Your task to perform on an android device: turn pop-ups on in chrome Image 0: 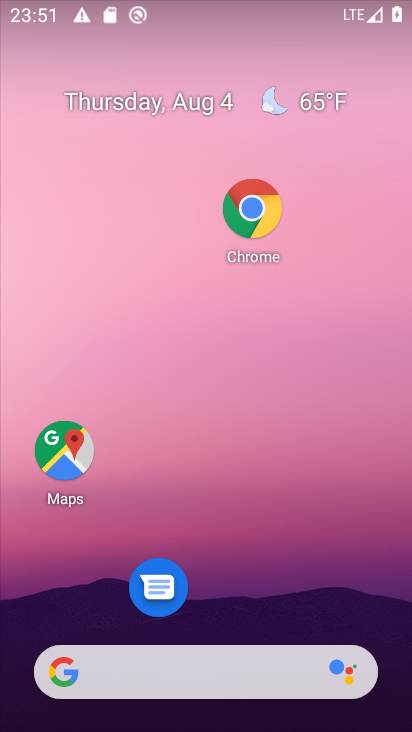
Step 0: drag from (204, 634) to (217, 216)
Your task to perform on an android device: turn pop-ups on in chrome Image 1: 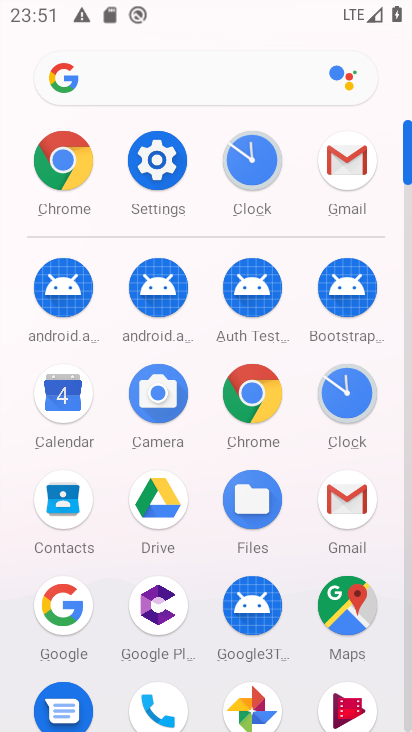
Step 1: click (234, 393)
Your task to perform on an android device: turn pop-ups on in chrome Image 2: 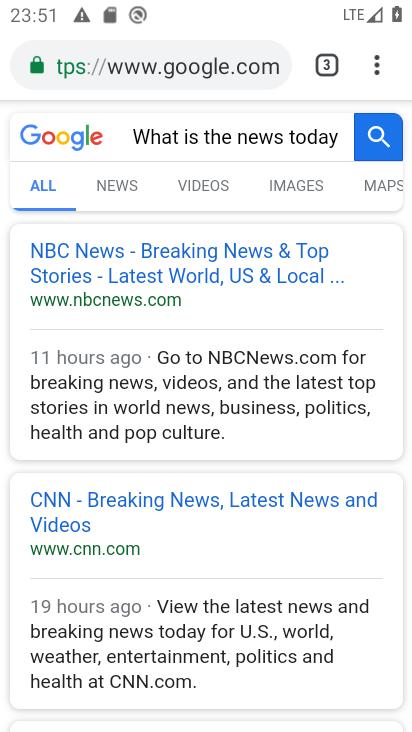
Step 2: click (385, 69)
Your task to perform on an android device: turn pop-ups on in chrome Image 3: 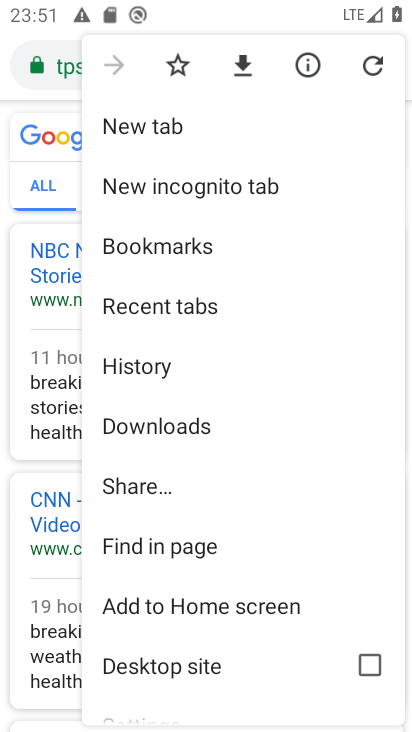
Step 3: drag from (168, 684) to (236, 325)
Your task to perform on an android device: turn pop-ups on in chrome Image 4: 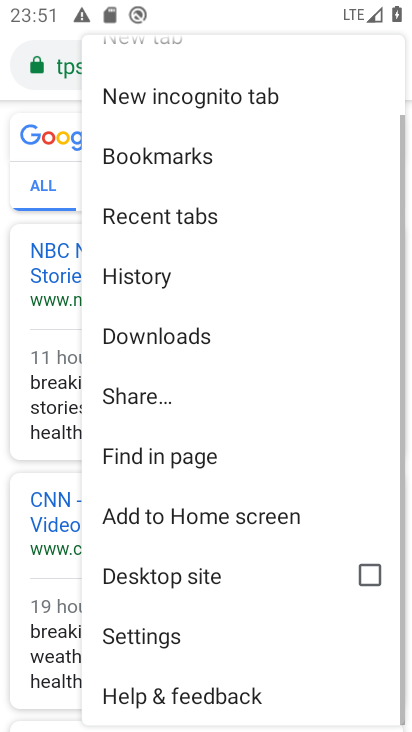
Step 4: click (150, 632)
Your task to perform on an android device: turn pop-ups on in chrome Image 5: 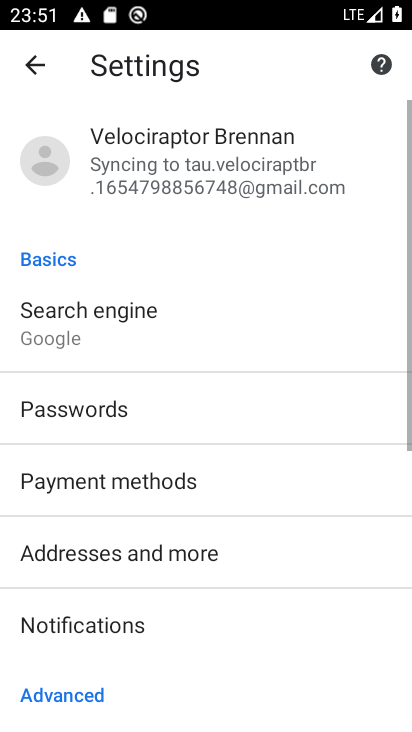
Step 5: drag from (141, 655) to (256, 211)
Your task to perform on an android device: turn pop-ups on in chrome Image 6: 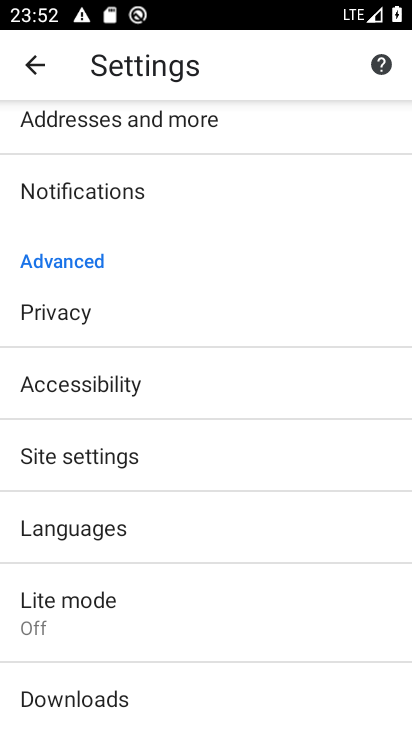
Step 6: click (165, 425)
Your task to perform on an android device: turn pop-ups on in chrome Image 7: 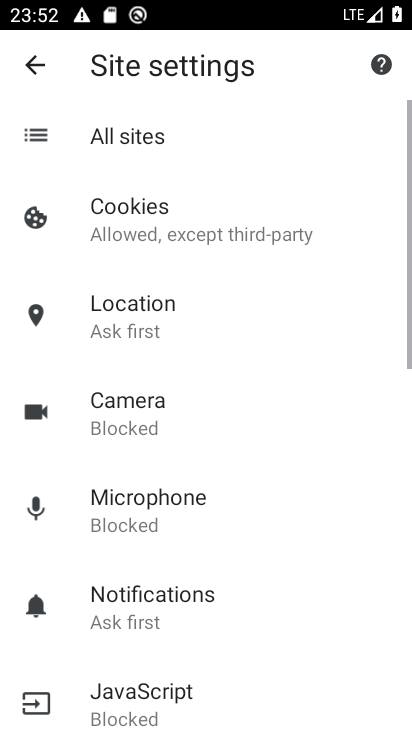
Step 7: drag from (135, 549) to (306, 190)
Your task to perform on an android device: turn pop-ups on in chrome Image 8: 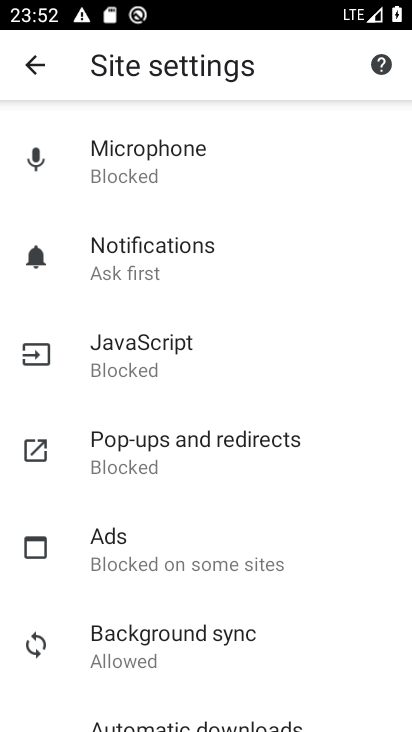
Step 8: click (166, 455)
Your task to perform on an android device: turn pop-ups on in chrome Image 9: 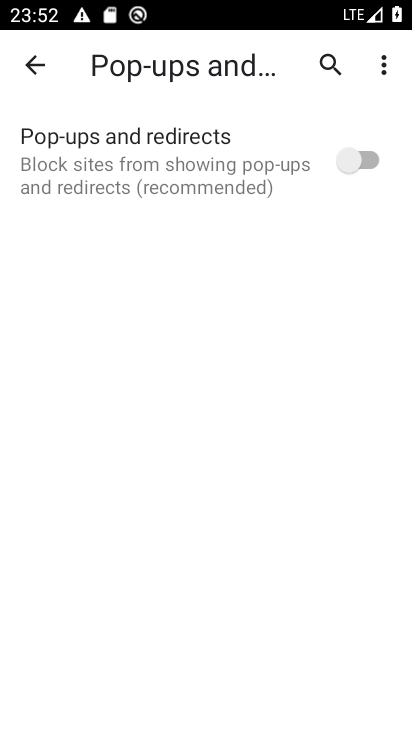
Step 9: click (379, 158)
Your task to perform on an android device: turn pop-ups on in chrome Image 10: 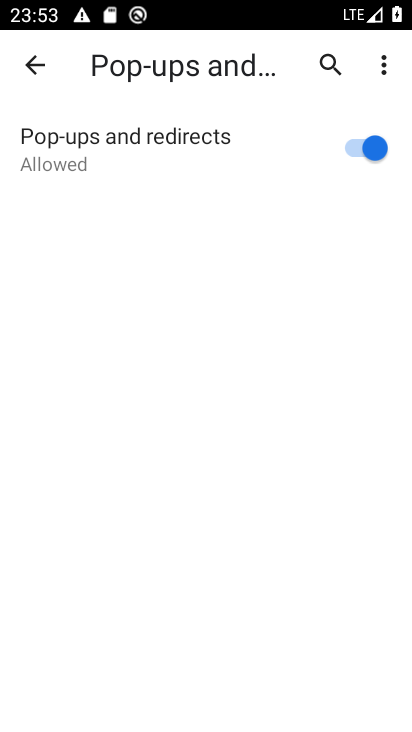
Step 10: task complete